Your task to perform on an android device: Toggle the flashlight Image 0: 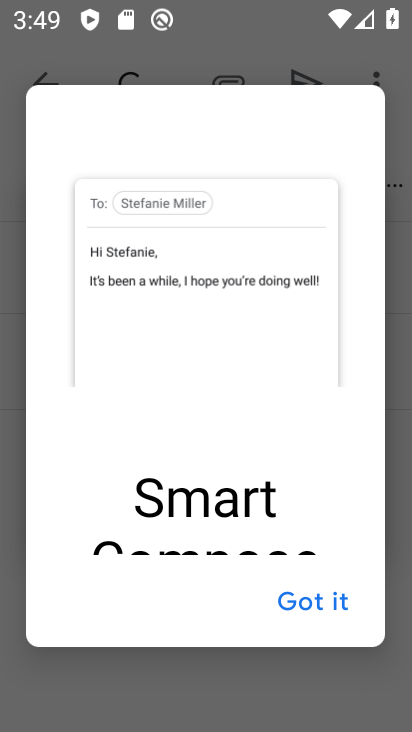
Step 0: press home button
Your task to perform on an android device: Toggle the flashlight Image 1: 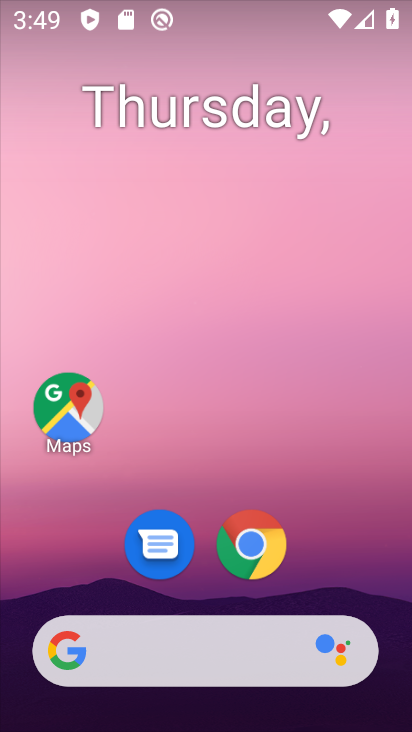
Step 1: drag from (296, 438) to (302, 206)
Your task to perform on an android device: Toggle the flashlight Image 2: 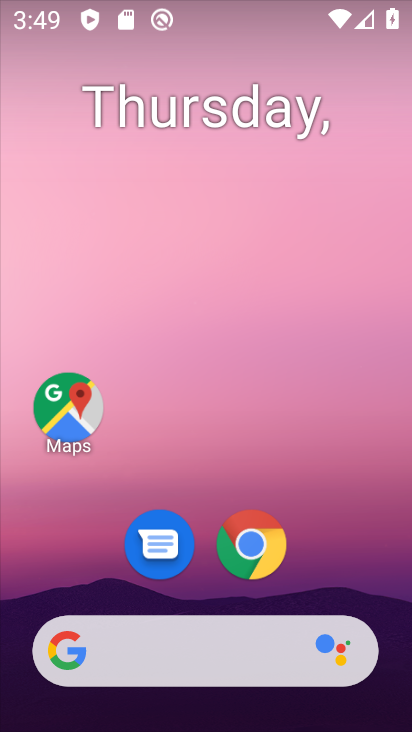
Step 2: drag from (328, 553) to (338, 256)
Your task to perform on an android device: Toggle the flashlight Image 3: 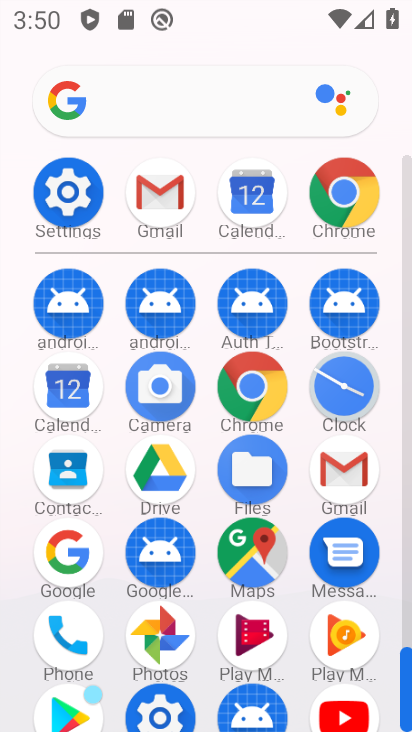
Step 3: drag from (299, 682) to (297, 261)
Your task to perform on an android device: Toggle the flashlight Image 4: 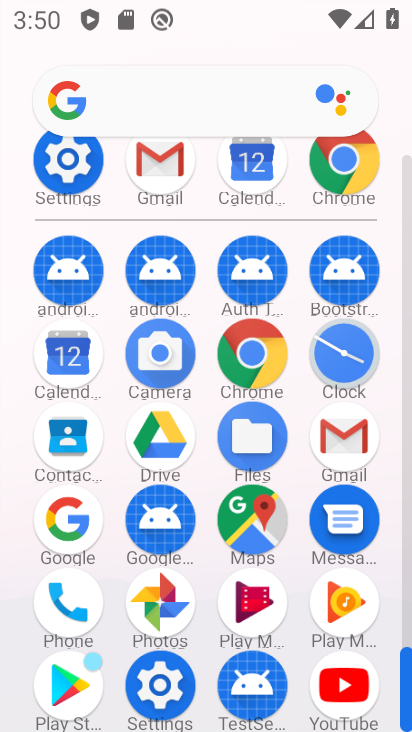
Step 4: drag from (288, 648) to (309, 197)
Your task to perform on an android device: Toggle the flashlight Image 5: 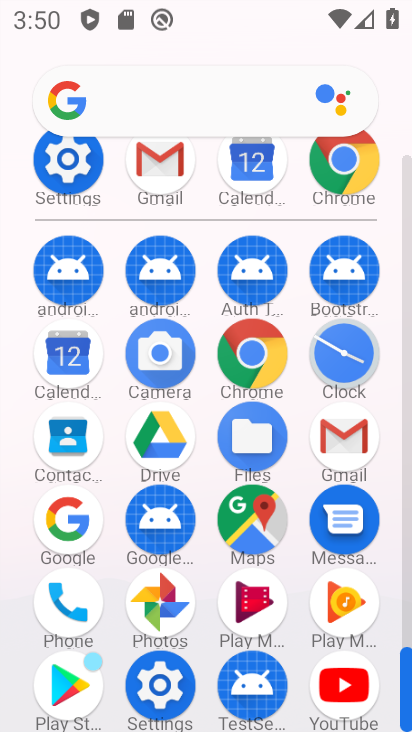
Step 5: drag from (209, 641) to (190, 209)
Your task to perform on an android device: Toggle the flashlight Image 6: 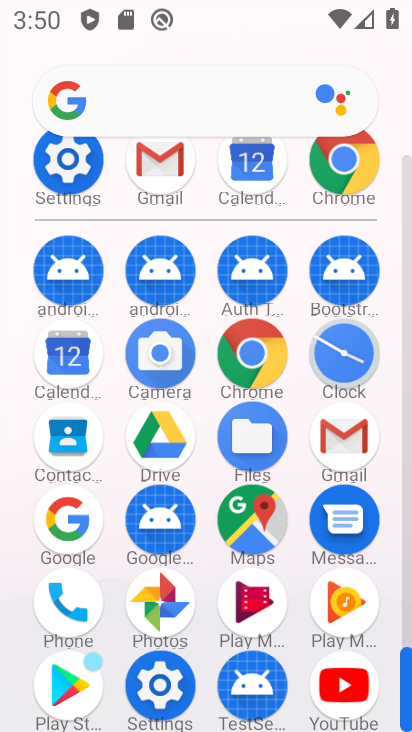
Step 6: click (60, 156)
Your task to perform on an android device: Toggle the flashlight Image 7: 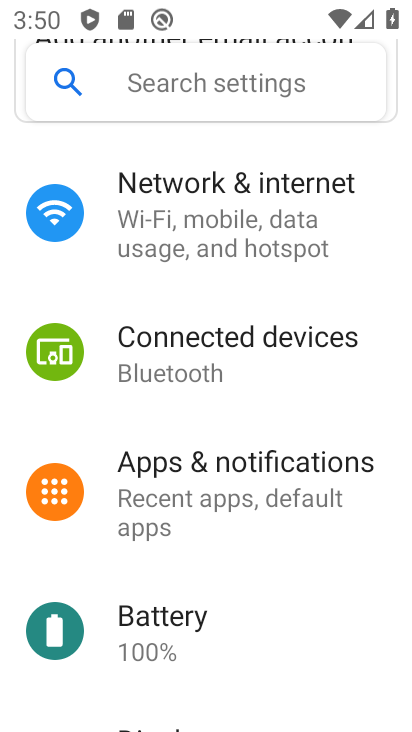
Step 7: task complete